Your task to perform on an android device: What's the weather today? Image 0: 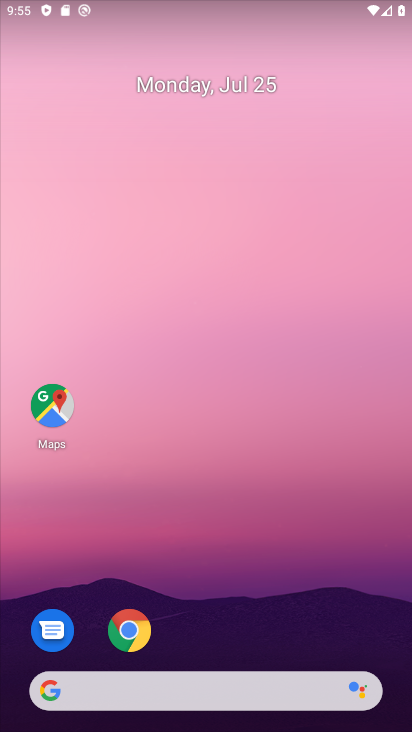
Step 0: drag from (201, 652) to (207, 50)
Your task to perform on an android device: What's the weather today? Image 1: 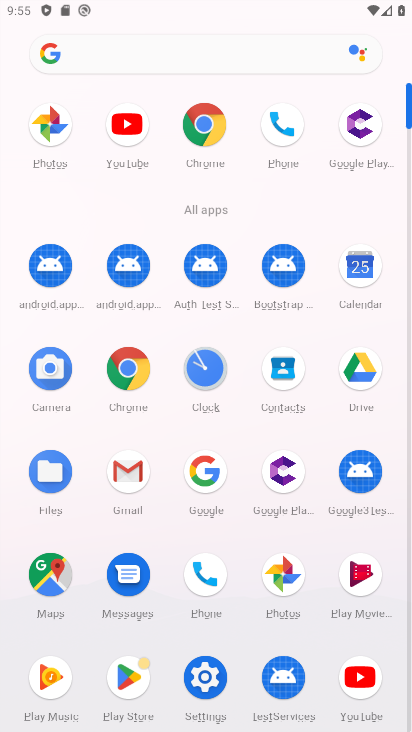
Step 1: click (208, 472)
Your task to perform on an android device: What's the weather today? Image 2: 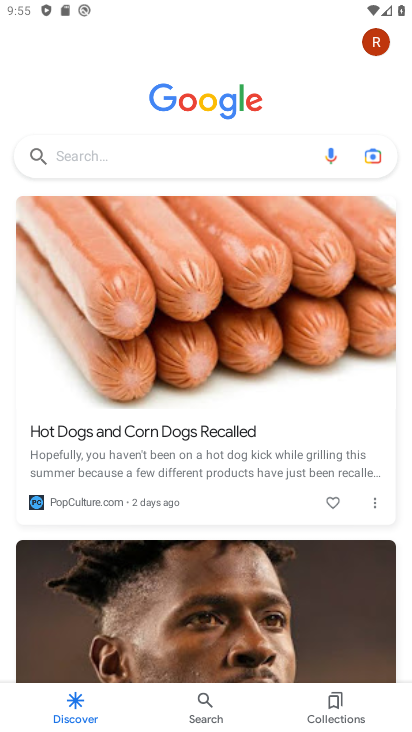
Step 2: click (231, 166)
Your task to perform on an android device: What's the weather today? Image 3: 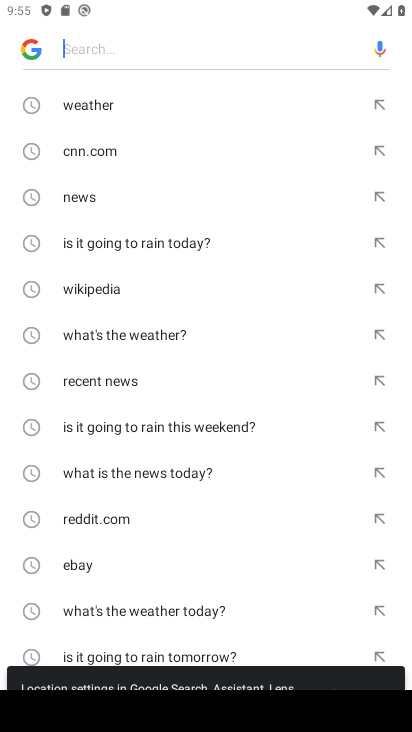
Step 3: click (93, 96)
Your task to perform on an android device: What's the weather today? Image 4: 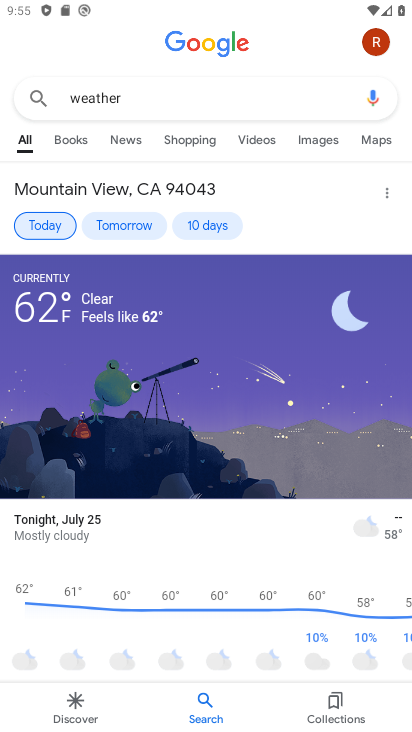
Step 4: task complete